Your task to perform on an android device: toggle sleep mode Image 0: 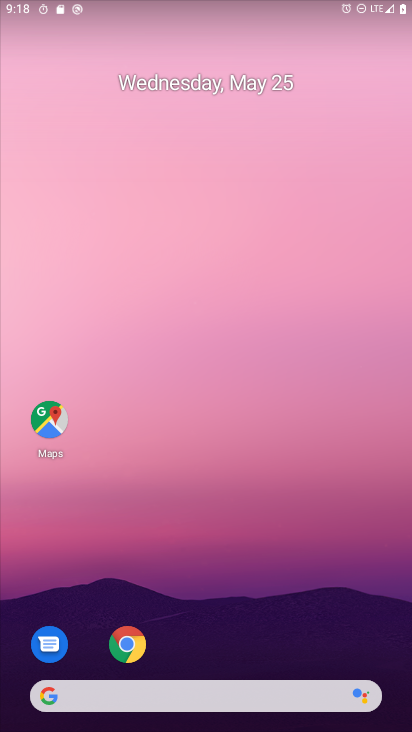
Step 0: drag from (293, 648) to (170, 8)
Your task to perform on an android device: toggle sleep mode Image 1: 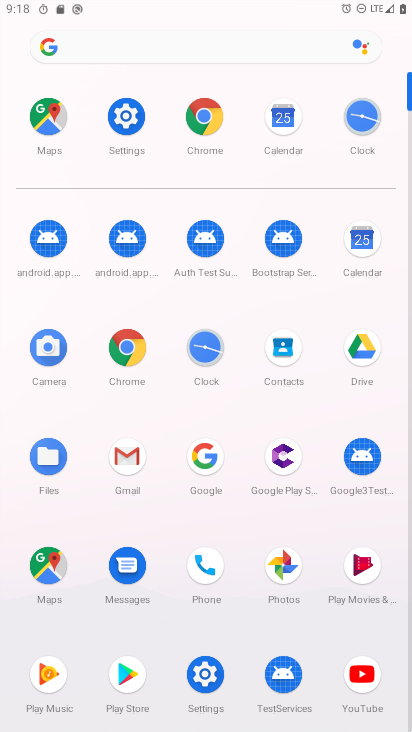
Step 1: click (132, 128)
Your task to perform on an android device: toggle sleep mode Image 2: 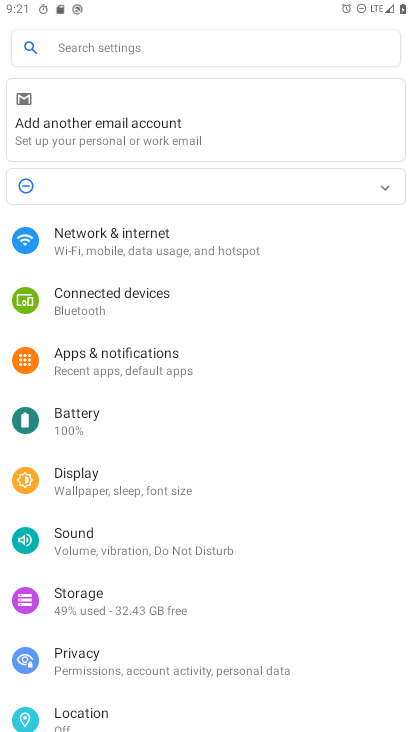
Step 2: task complete